Your task to perform on an android device: toggle wifi Image 0: 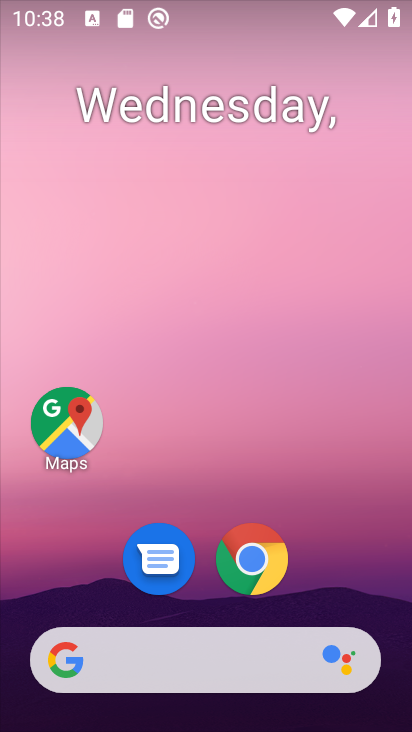
Step 0: drag from (330, 638) to (391, 65)
Your task to perform on an android device: toggle wifi Image 1: 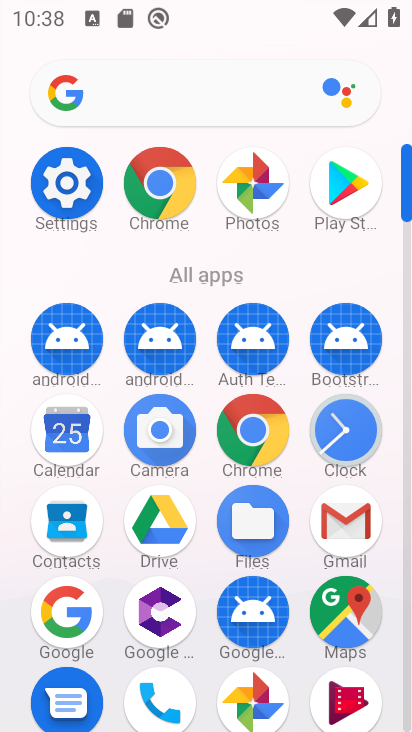
Step 1: click (73, 204)
Your task to perform on an android device: toggle wifi Image 2: 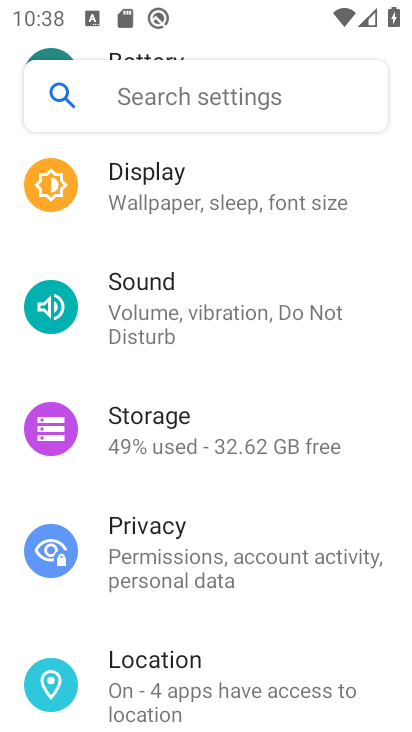
Step 2: drag from (211, 310) to (233, 617)
Your task to perform on an android device: toggle wifi Image 3: 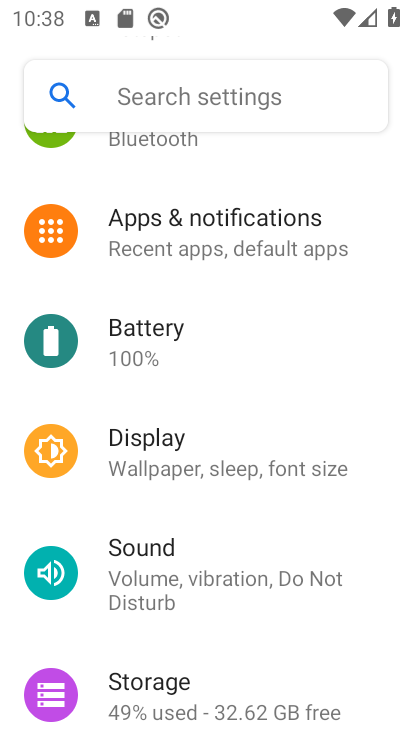
Step 3: drag from (274, 321) to (263, 613)
Your task to perform on an android device: toggle wifi Image 4: 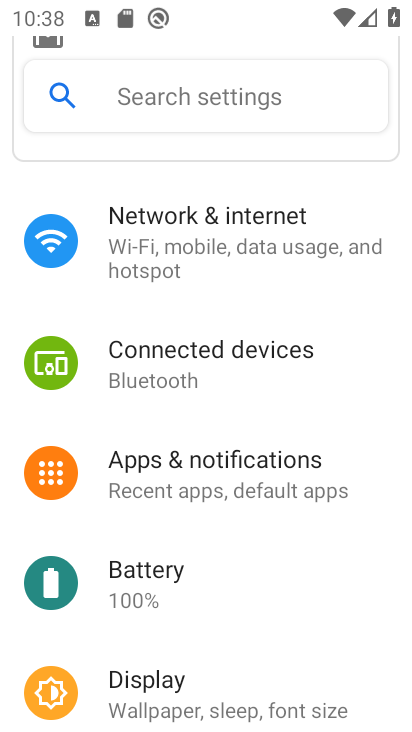
Step 4: click (250, 242)
Your task to perform on an android device: toggle wifi Image 5: 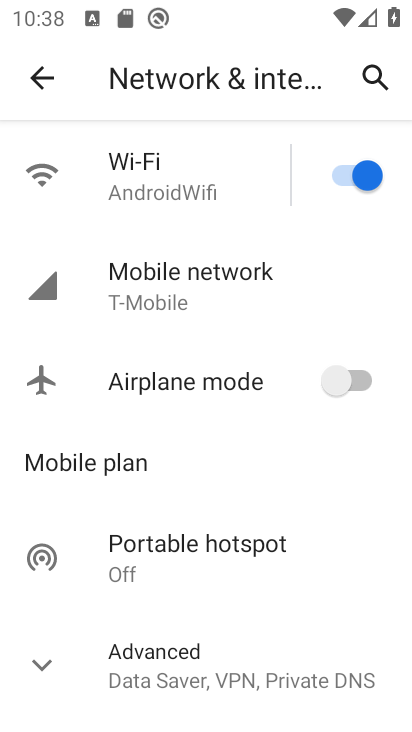
Step 5: click (355, 180)
Your task to perform on an android device: toggle wifi Image 6: 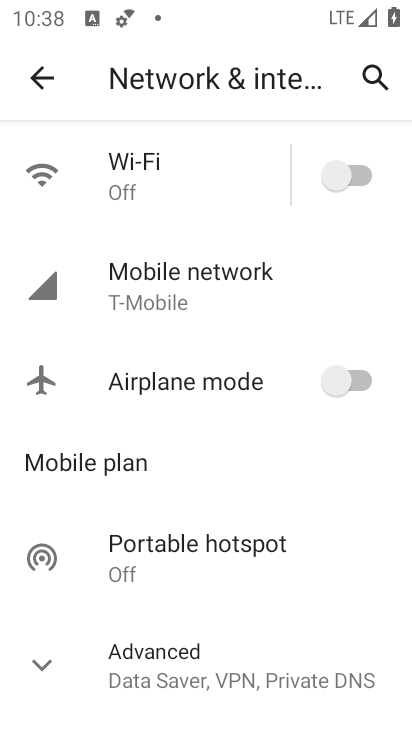
Step 6: task complete